Your task to perform on an android device: What's on my calendar today? Image 0: 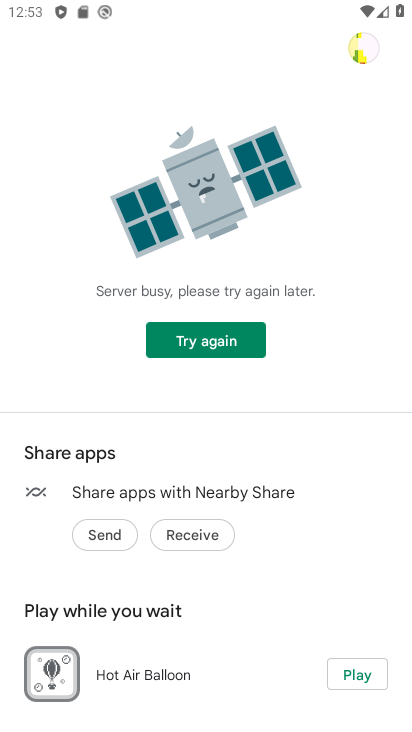
Step 0: press home button
Your task to perform on an android device: What's on my calendar today? Image 1: 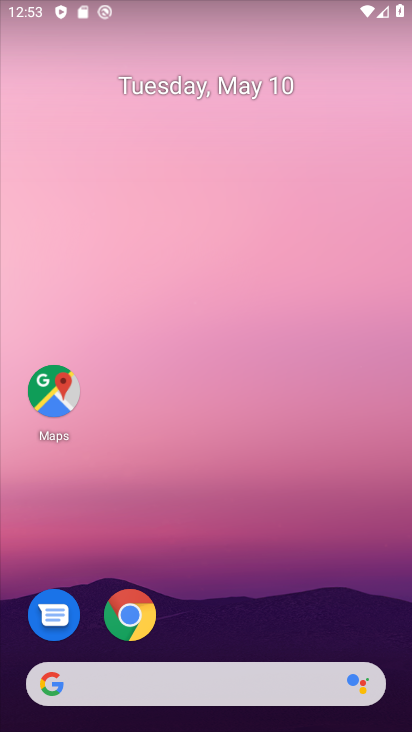
Step 1: drag from (251, 619) to (286, 37)
Your task to perform on an android device: What's on my calendar today? Image 2: 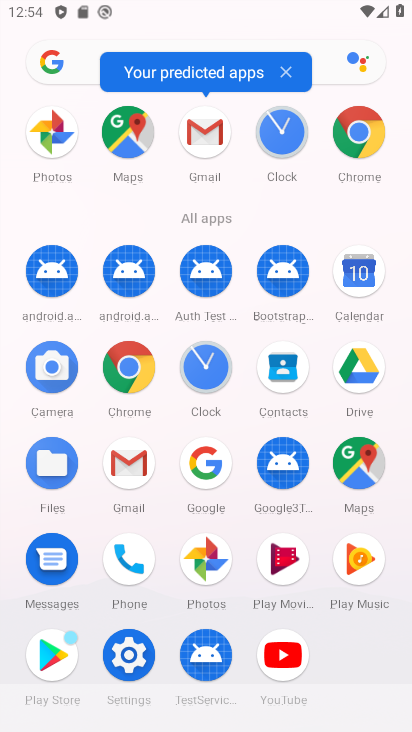
Step 2: click (366, 288)
Your task to perform on an android device: What's on my calendar today? Image 3: 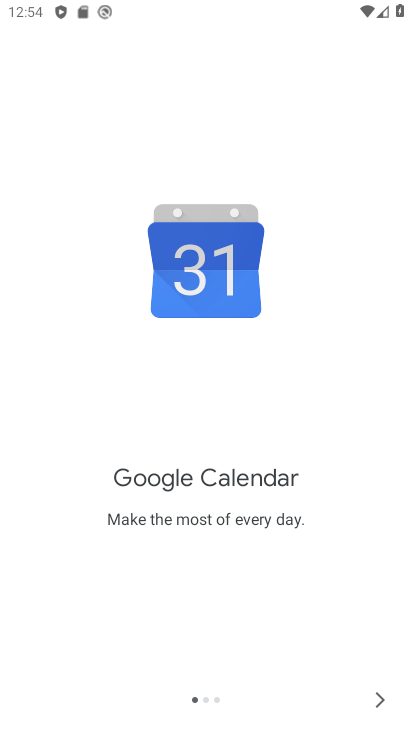
Step 3: click (382, 708)
Your task to perform on an android device: What's on my calendar today? Image 4: 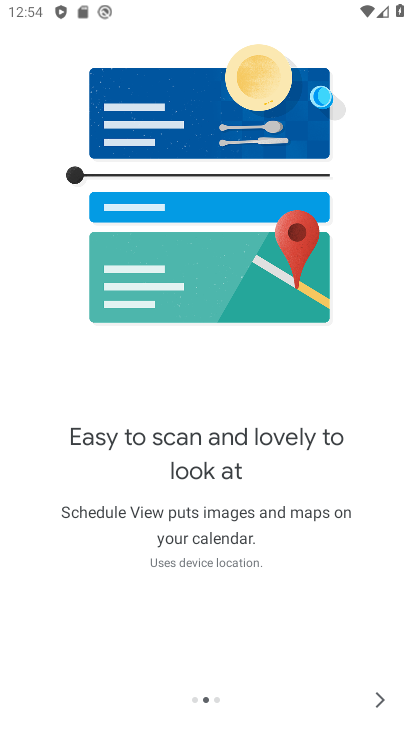
Step 4: click (388, 696)
Your task to perform on an android device: What's on my calendar today? Image 5: 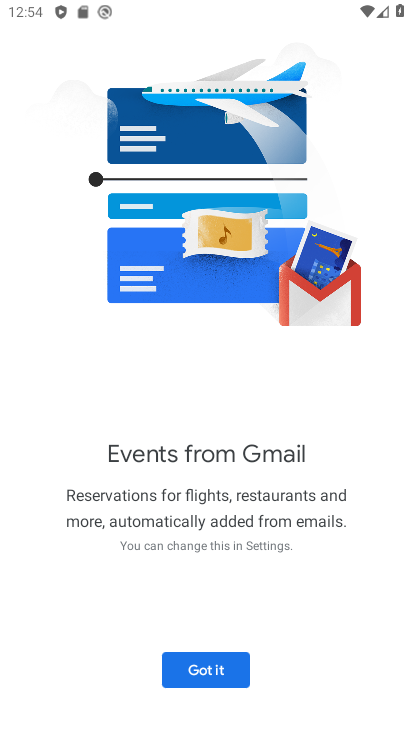
Step 5: click (226, 676)
Your task to perform on an android device: What's on my calendar today? Image 6: 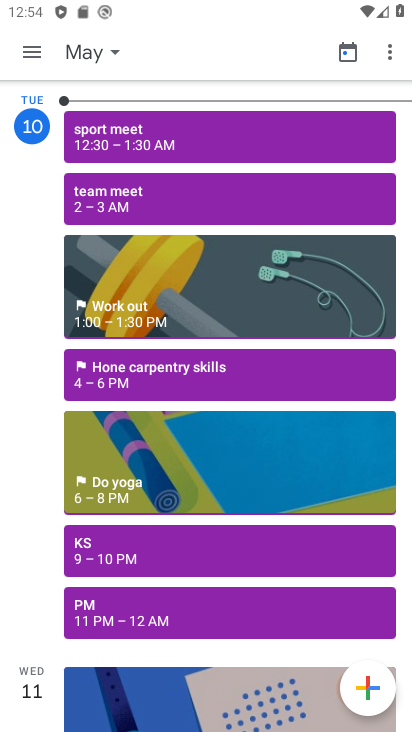
Step 6: click (47, 57)
Your task to perform on an android device: What's on my calendar today? Image 7: 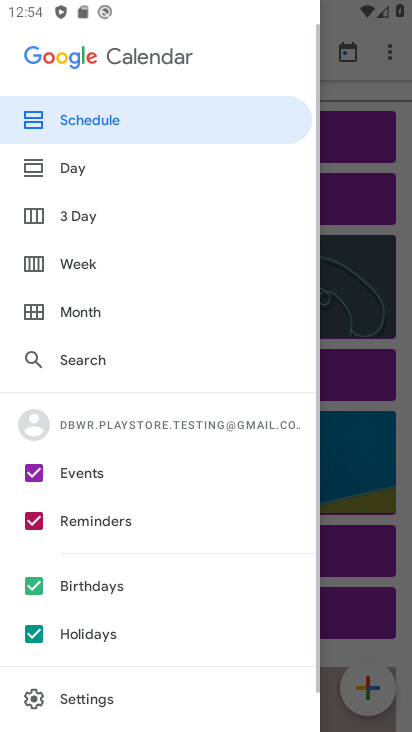
Step 7: click (122, 175)
Your task to perform on an android device: What's on my calendar today? Image 8: 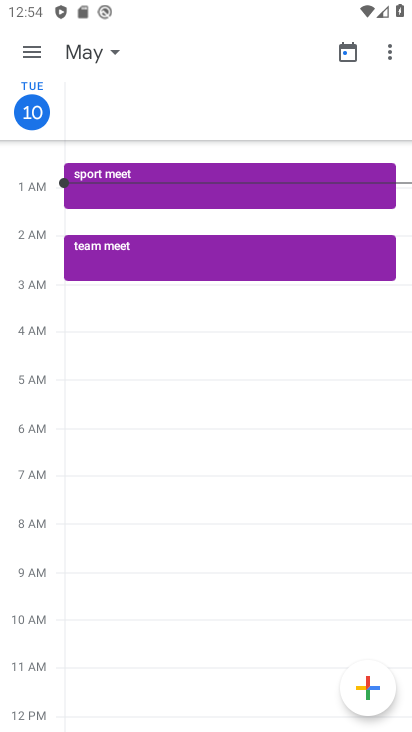
Step 8: task complete